Your task to perform on an android device: see sites visited before in the chrome app Image 0: 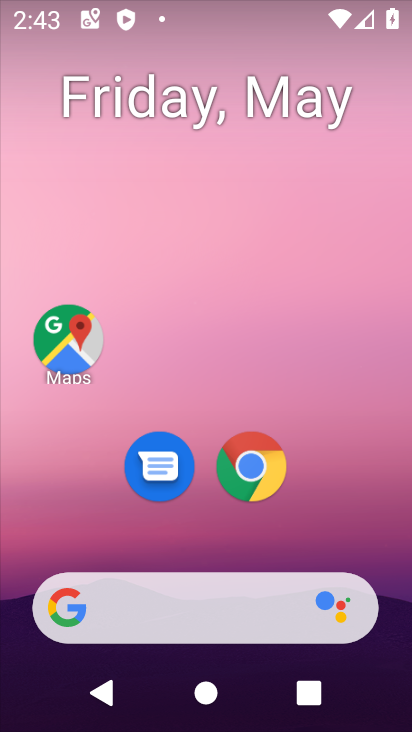
Step 0: click (256, 462)
Your task to perform on an android device: see sites visited before in the chrome app Image 1: 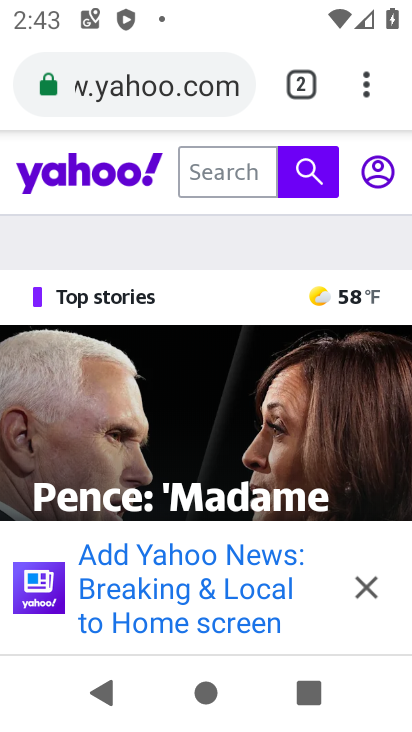
Step 1: drag from (365, 75) to (130, 396)
Your task to perform on an android device: see sites visited before in the chrome app Image 2: 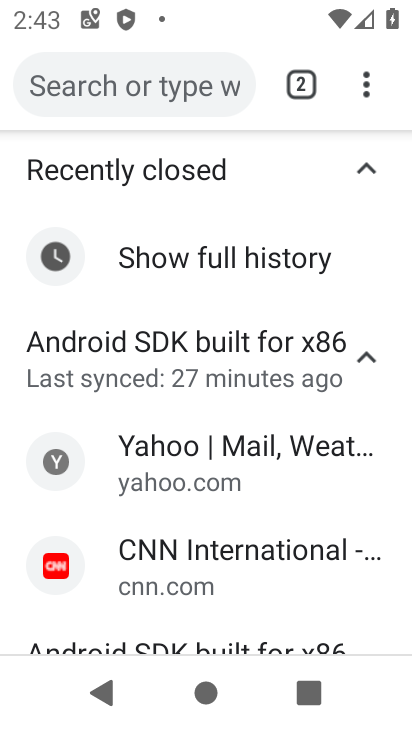
Step 2: drag from (371, 88) to (139, 393)
Your task to perform on an android device: see sites visited before in the chrome app Image 3: 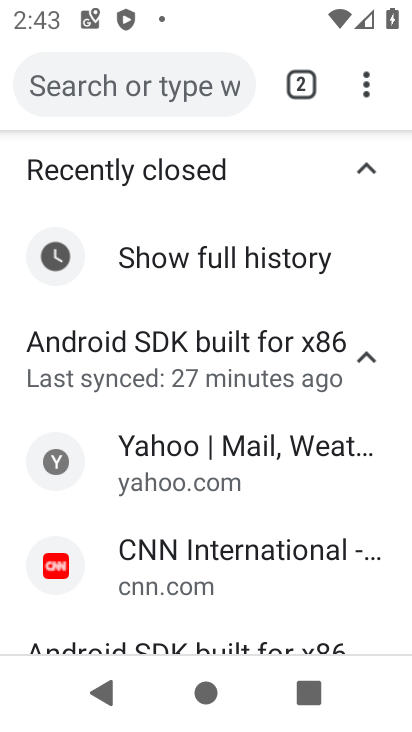
Step 3: click (362, 74)
Your task to perform on an android device: see sites visited before in the chrome app Image 4: 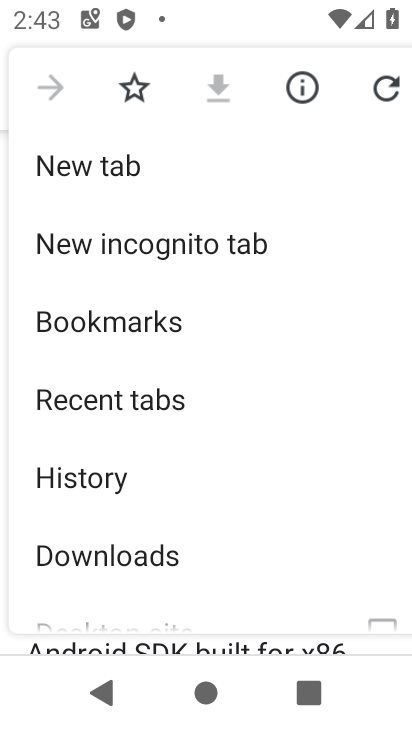
Step 4: click (68, 477)
Your task to perform on an android device: see sites visited before in the chrome app Image 5: 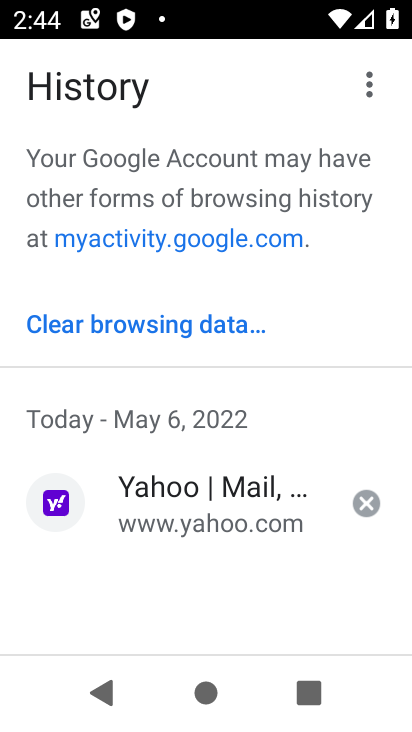
Step 5: task complete